Your task to perform on an android device: toggle javascript in the chrome app Image 0: 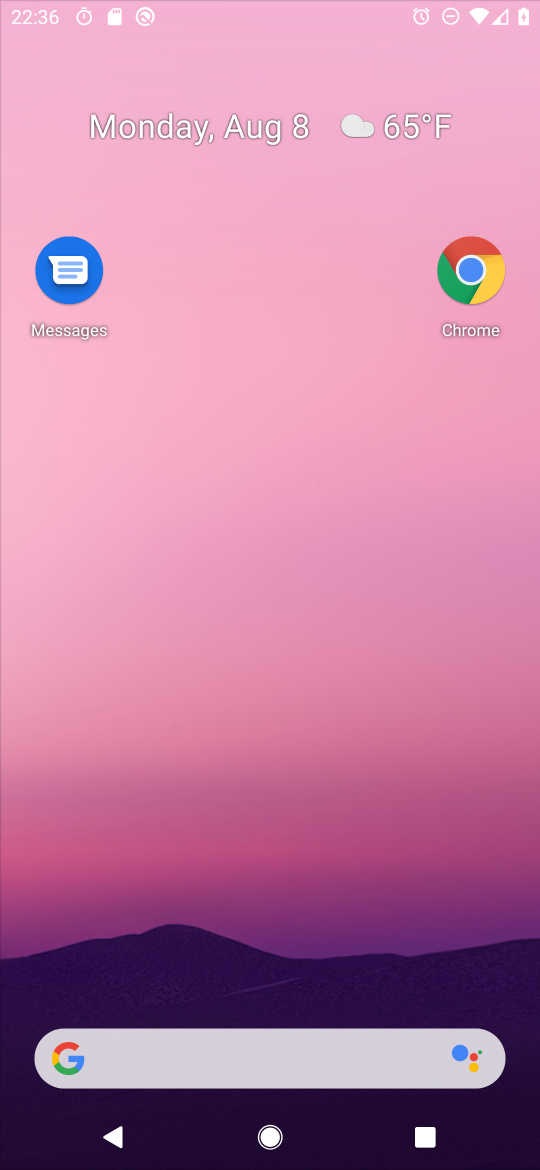
Step 0: click (423, 321)
Your task to perform on an android device: toggle javascript in the chrome app Image 1: 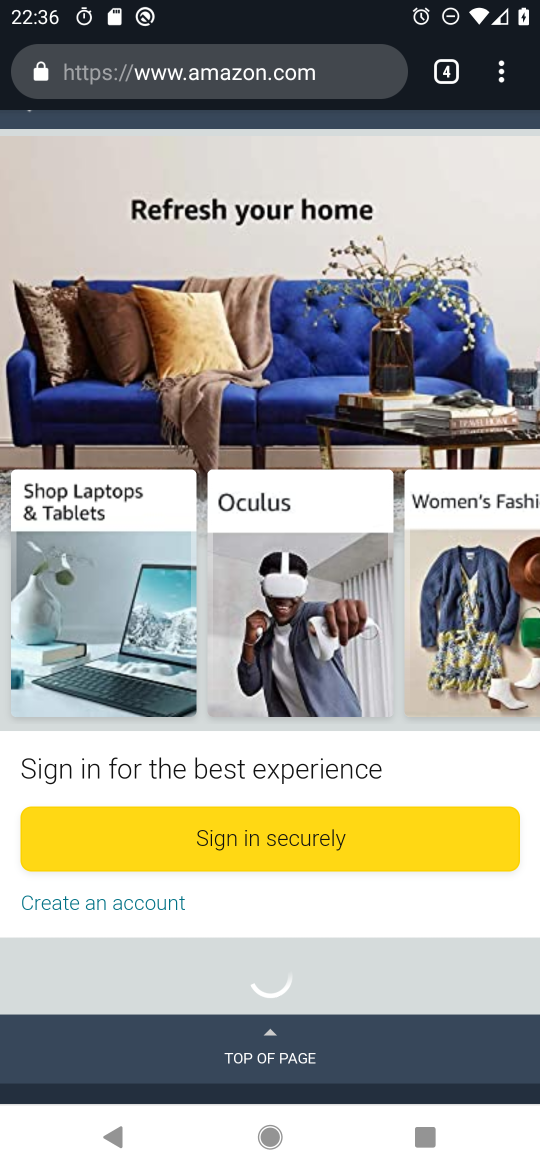
Step 1: drag from (508, 81) to (260, 867)
Your task to perform on an android device: toggle javascript in the chrome app Image 2: 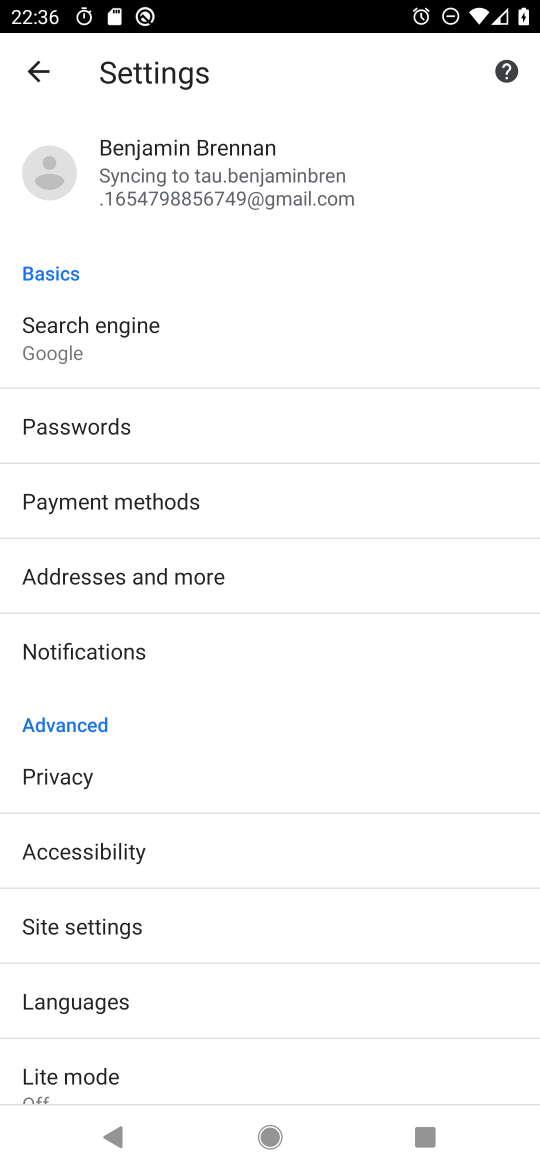
Step 2: click (119, 925)
Your task to perform on an android device: toggle javascript in the chrome app Image 3: 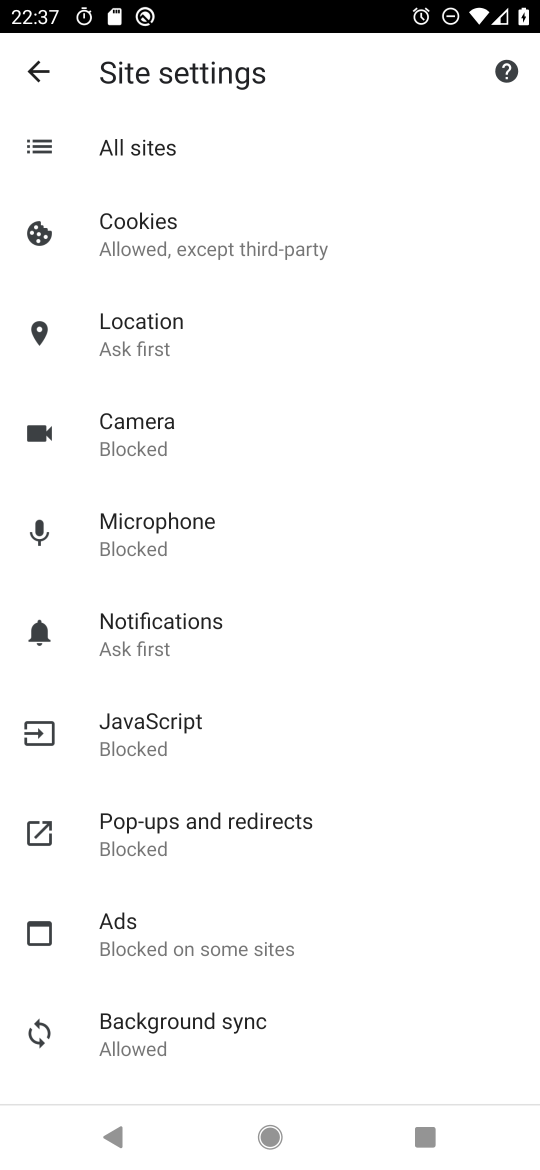
Step 3: click (151, 733)
Your task to perform on an android device: toggle javascript in the chrome app Image 4: 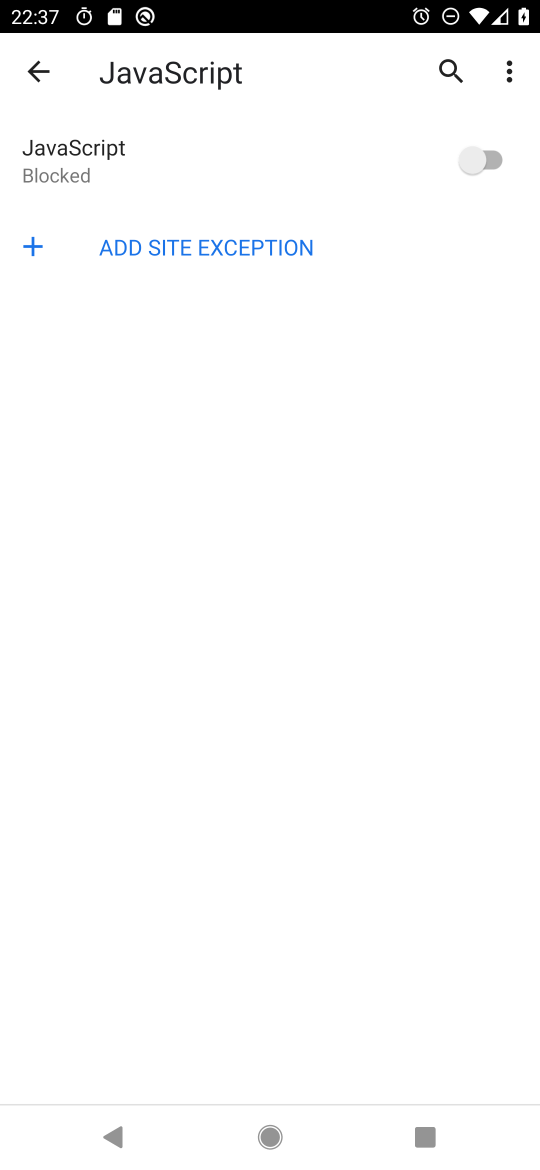
Step 4: click (476, 124)
Your task to perform on an android device: toggle javascript in the chrome app Image 5: 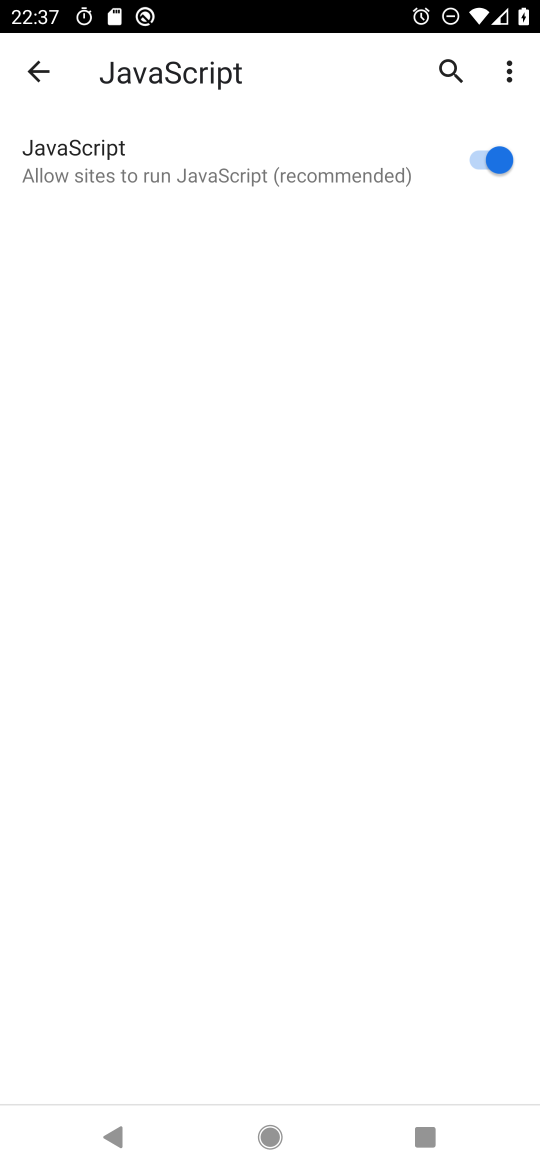
Step 5: task complete